Your task to perform on an android device: turn off notifications in google photos Image 0: 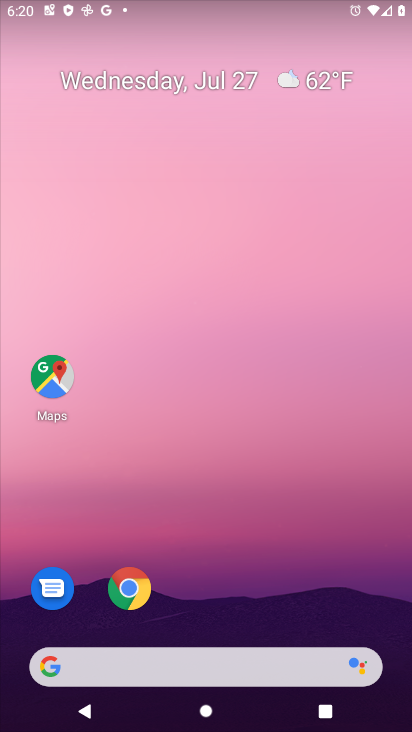
Step 0: drag from (176, 571) to (178, 169)
Your task to perform on an android device: turn off notifications in google photos Image 1: 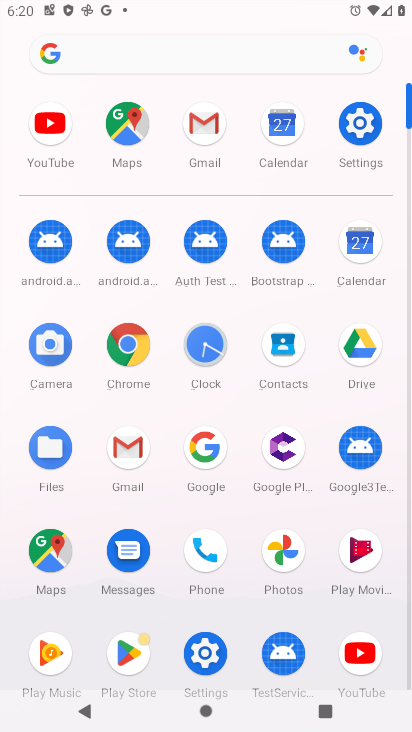
Step 1: click (282, 556)
Your task to perform on an android device: turn off notifications in google photos Image 2: 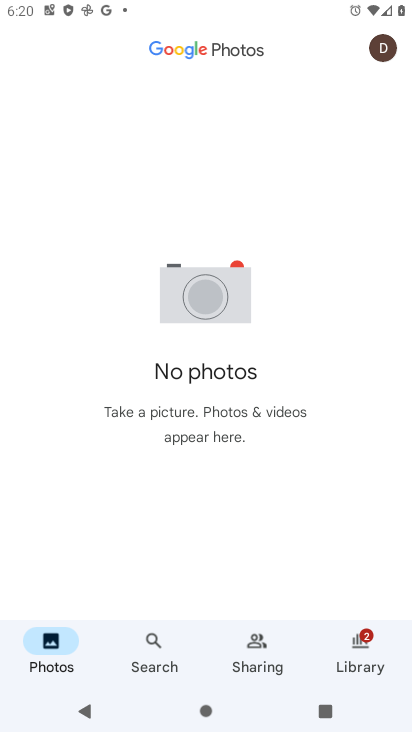
Step 2: click (375, 48)
Your task to perform on an android device: turn off notifications in google photos Image 3: 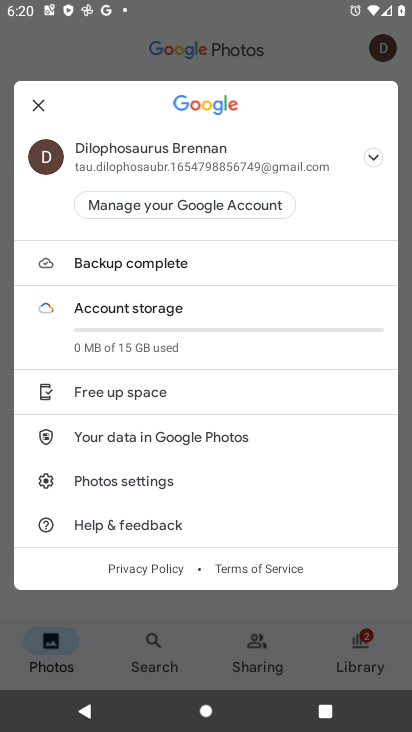
Step 3: click (107, 482)
Your task to perform on an android device: turn off notifications in google photos Image 4: 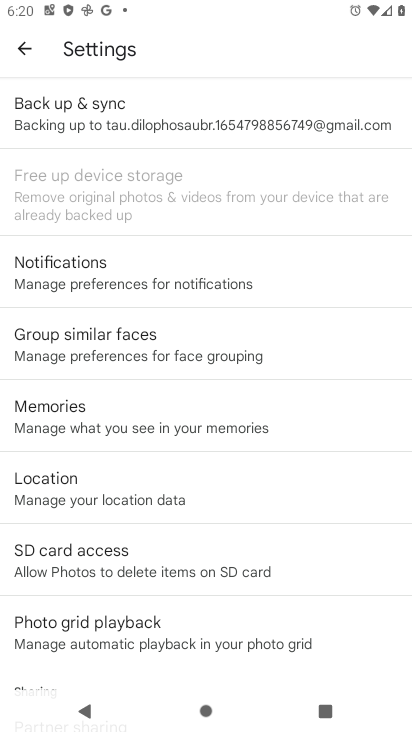
Step 4: click (100, 266)
Your task to perform on an android device: turn off notifications in google photos Image 5: 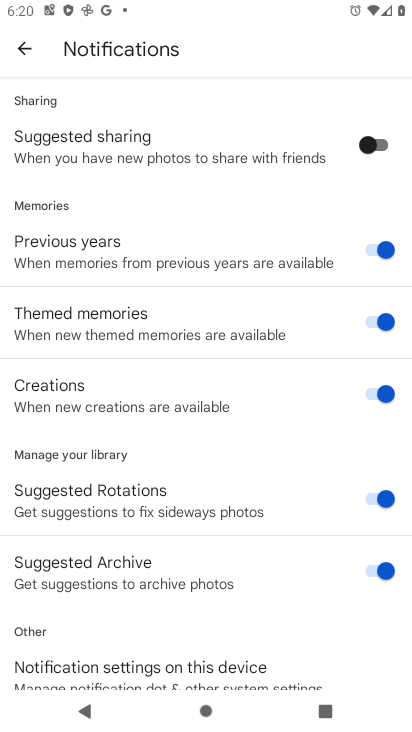
Step 5: click (372, 247)
Your task to perform on an android device: turn off notifications in google photos Image 6: 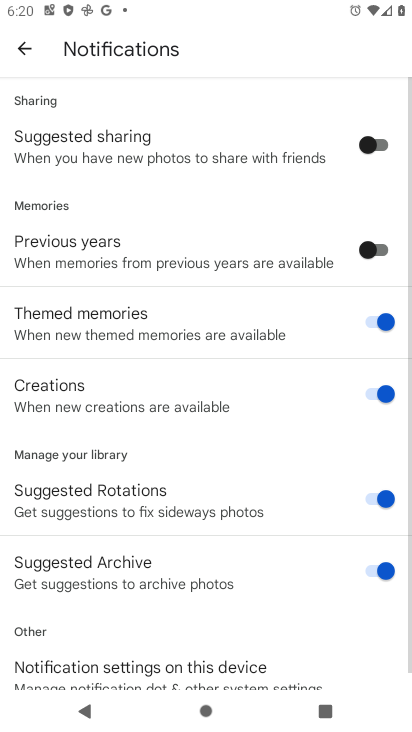
Step 6: click (372, 325)
Your task to perform on an android device: turn off notifications in google photos Image 7: 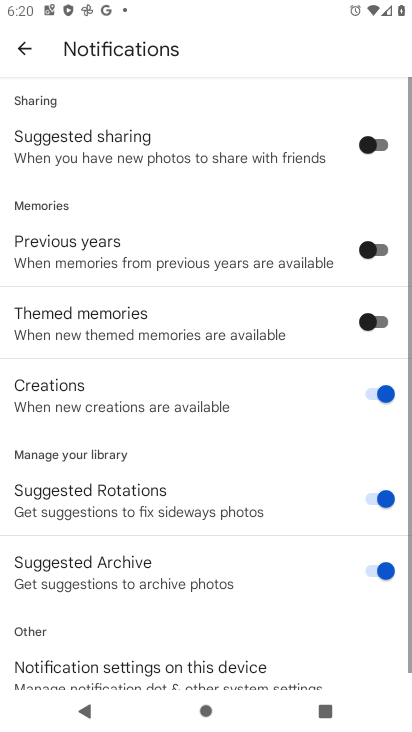
Step 7: click (372, 387)
Your task to perform on an android device: turn off notifications in google photos Image 8: 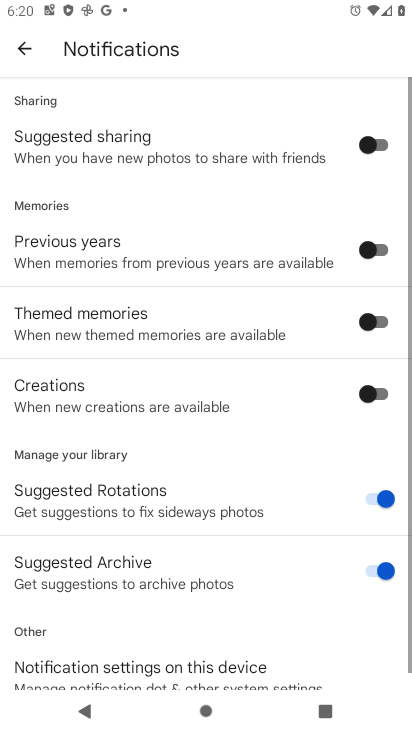
Step 8: click (372, 496)
Your task to perform on an android device: turn off notifications in google photos Image 9: 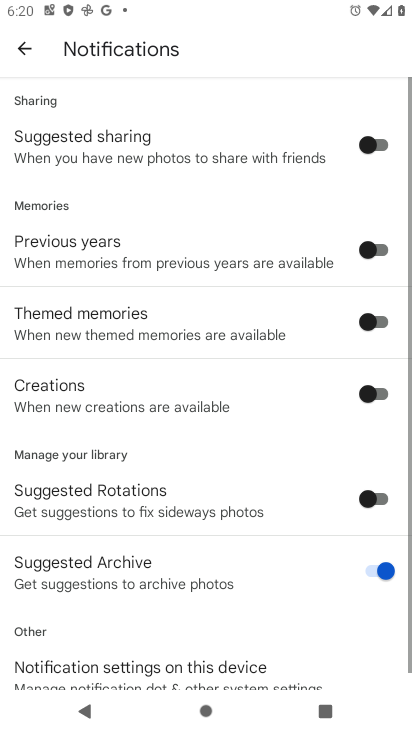
Step 9: click (372, 569)
Your task to perform on an android device: turn off notifications in google photos Image 10: 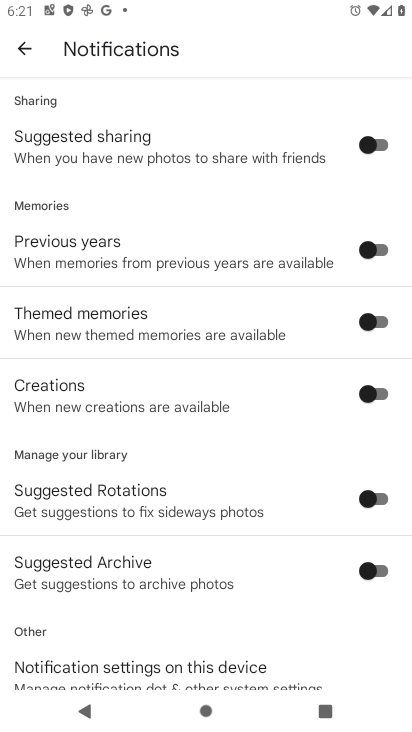
Step 10: task complete